Your task to perform on an android device: Go to Maps Image 0: 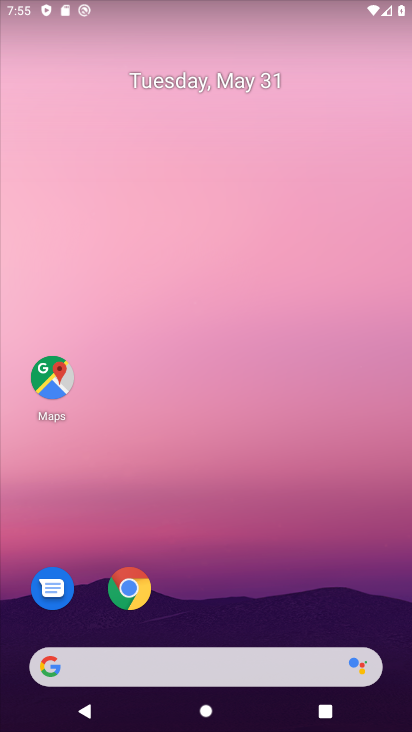
Step 0: click (57, 382)
Your task to perform on an android device: Go to Maps Image 1: 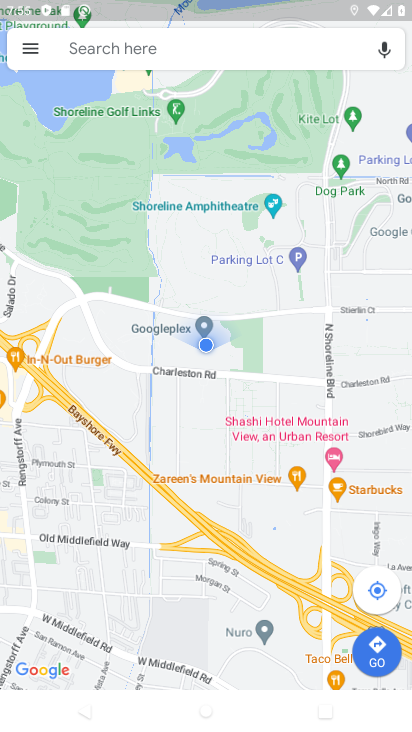
Step 1: task complete